Your task to perform on an android device: empty trash in the gmail app Image 0: 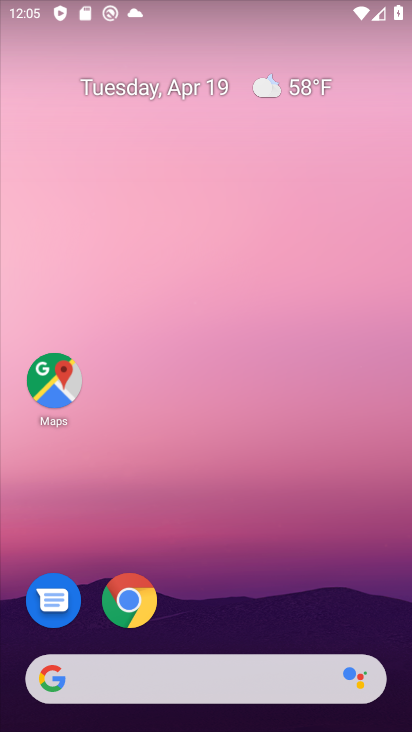
Step 0: drag from (326, 704) to (347, 198)
Your task to perform on an android device: empty trash in the gmail app Image 1: 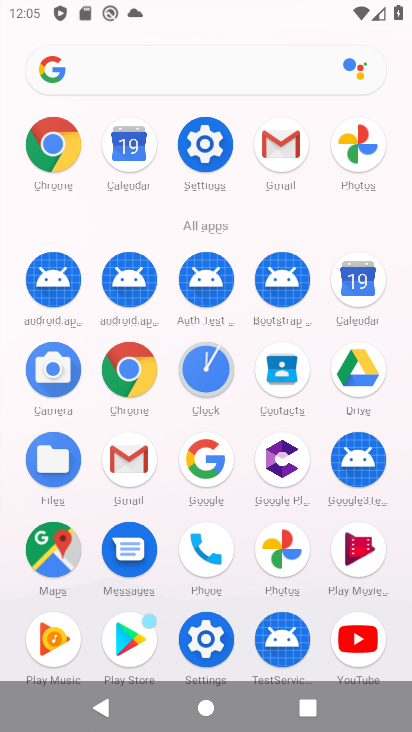
Step 1: click (292, 158)
Your task to perform on an android device: empty trash in the gmail app Image 2: 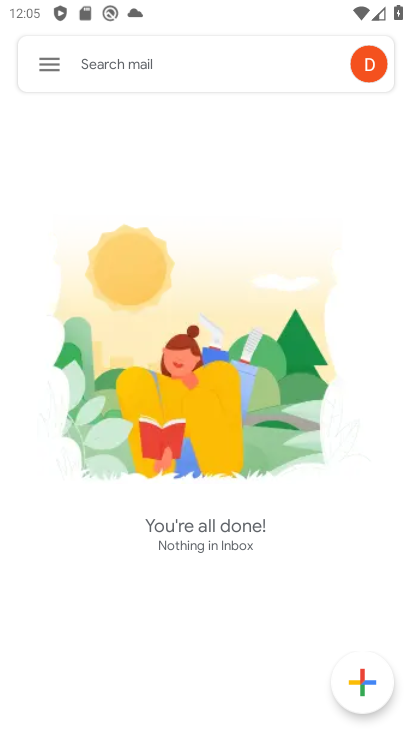
Step 2: click (54, 66)
Your task to perform on an android device: empty trash in the gmail app Image 3: 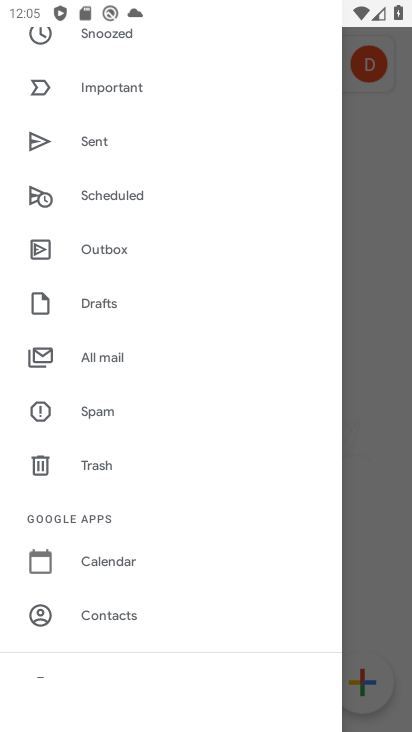
Step 3: drag from (130, 392) to (225, 260)
Your task to perform on an android device: empty trash in the gmail app Image 4: 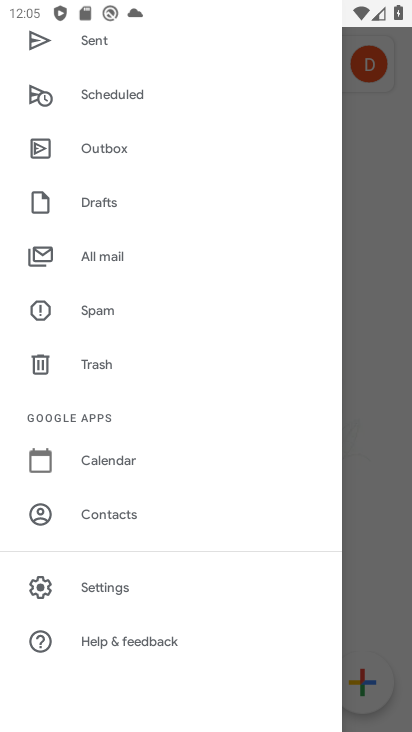
Step 4: click (120, 355)
Your task to perform on an android device: empty trash in the gmail app Image 5: 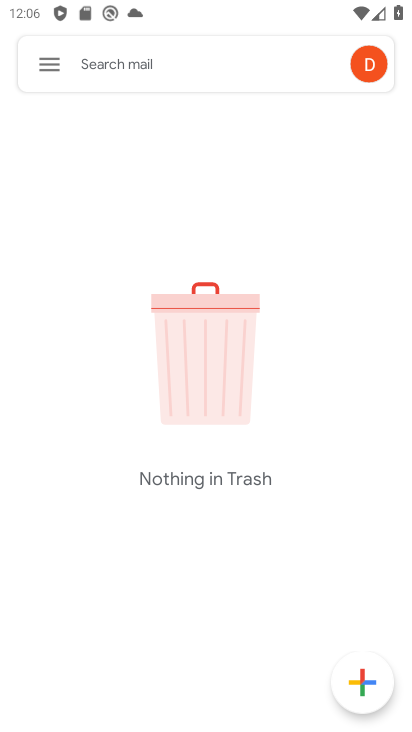
Step 5: task complete